Your task to perform on an android device: toggle improve location accuracy Image 0: 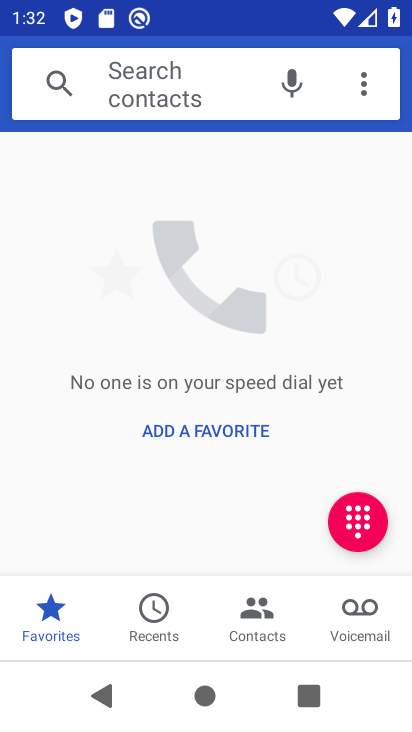
Step 0: press home button
Your task to perform on an android device: toggle improve location accuracy Image 1: 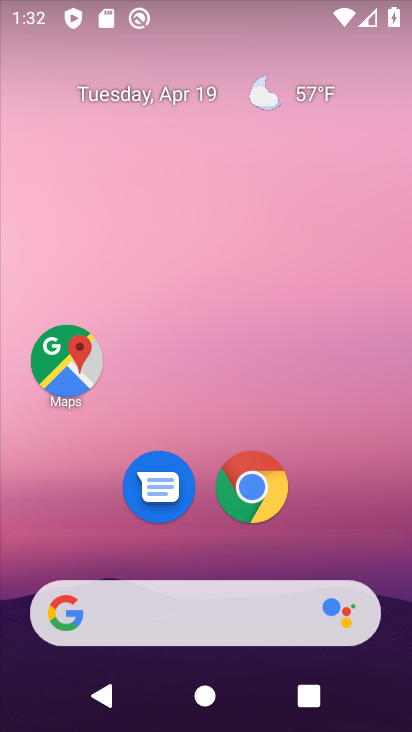
Step 1: drag from (357, 485) to (340, 125)
Your task to perform on an android device: toggle improve location accuracy Image 2: 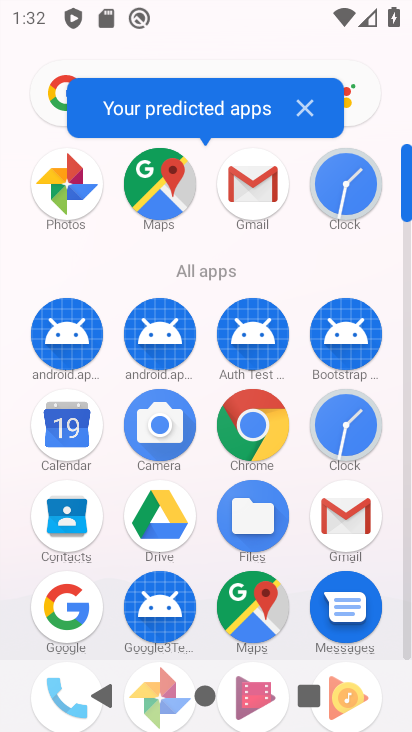
Step 2: drag from (378, 468) to (380, 267)
Your task to perform on an android device: toggle improve location accuracy Image 3: 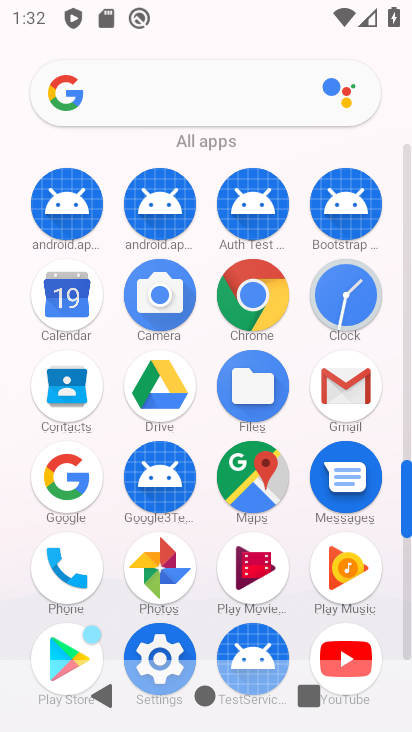
Step 3: click (173, 654)
Your task to perform on an android device: toggle improve location accuracy Image 4: 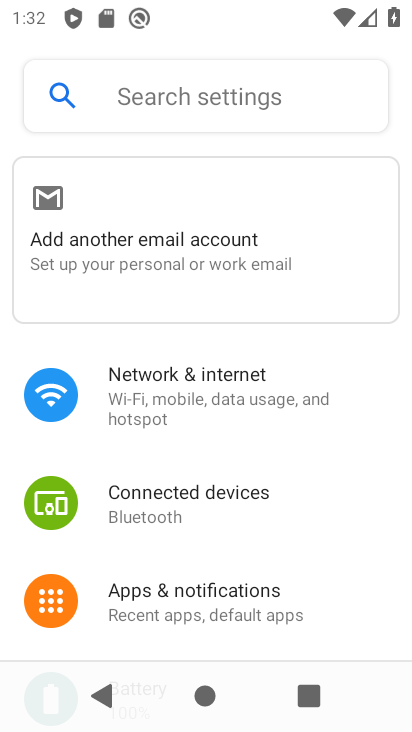
Step 4: drag from (326, 498) to (330, 283)
Your task to perform on an android device: toggle improve location accuracy Image 5: 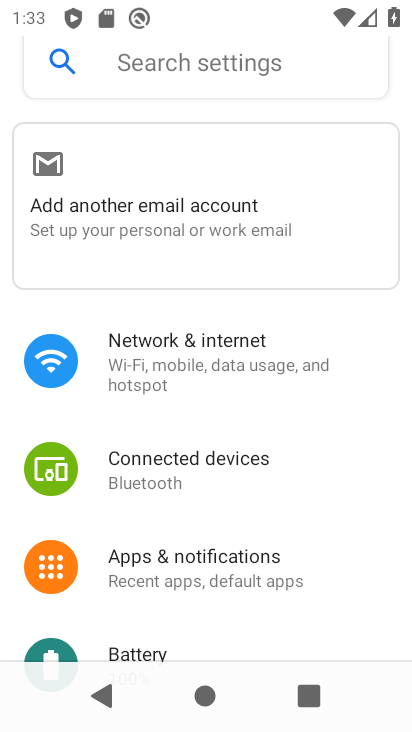
Step 5: drag from (312, 499) to (315, 293)
Your task to perform on an android device: toggle improve location accuracy Image 6: 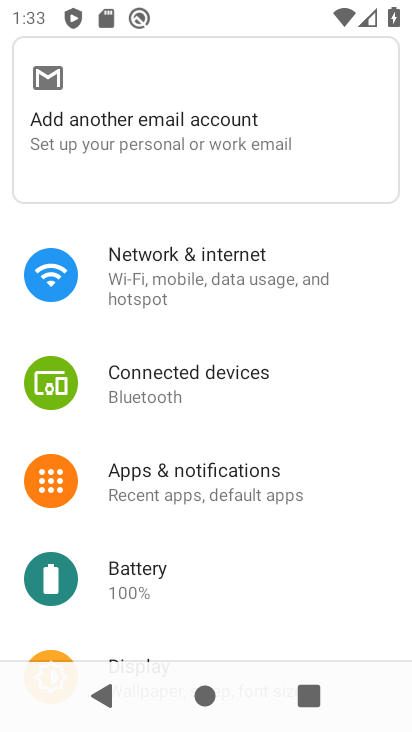
Step 6: drag from (325, 539) to (302, 353)
Your task to perform on an android device: toggle improve location accuracy Image 7: 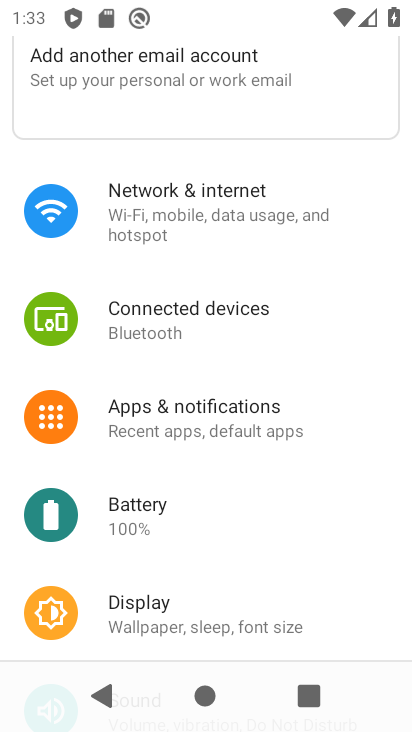
Step 7: drag from (288, 494) to (307, 257)
Your task to perform on an android device: toggle improve location accuracy Image 8: 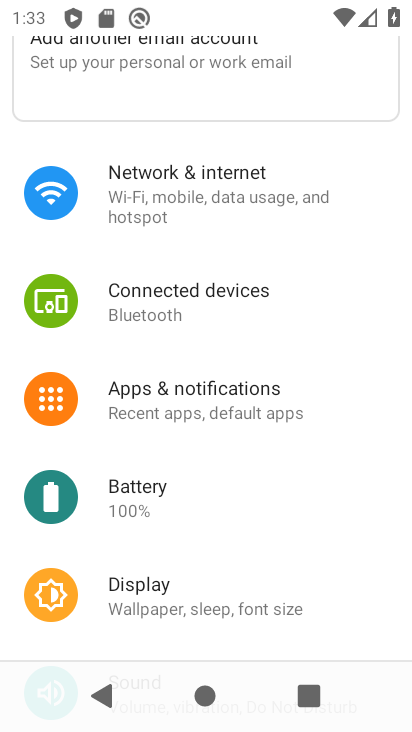
Step 8: drag from (333, 553) to (340, 280)
Your task to perform on an android device: toggle improve location accuracy Image 9: 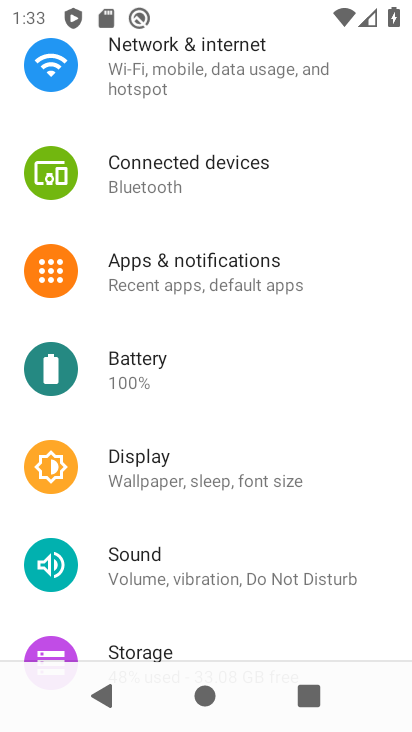
Step 9: drag from (326, 525) to (326, 211)
Your task to perform on an android device: toggle improve location accuracy Image 10: 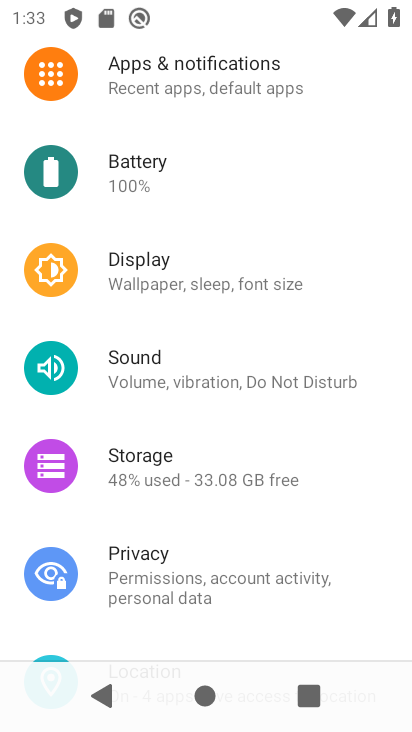
Step 10: drag from (281, 567) to (295, 206)
Your task to perform on an android device: toggle improve location accuracy Image 11: 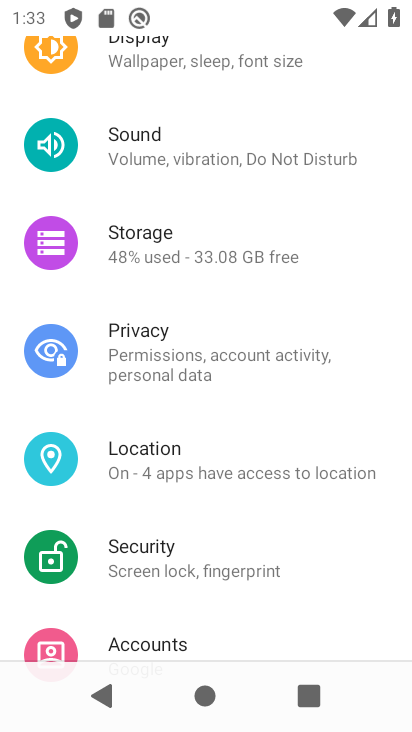
Step 11: click (154, 457)
Your task to perform on an android device: toggle improve location accuracy Image 12: 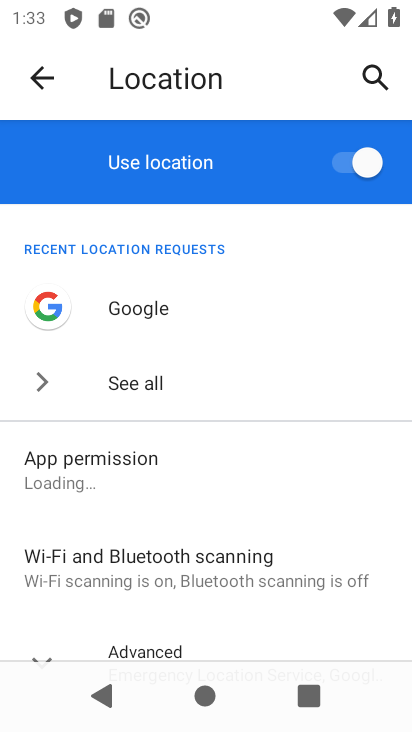
Step 12: drag from (276, 623) to (302, 378)
Your task to perform on an android device: toggle improve location accuracy Image 13: 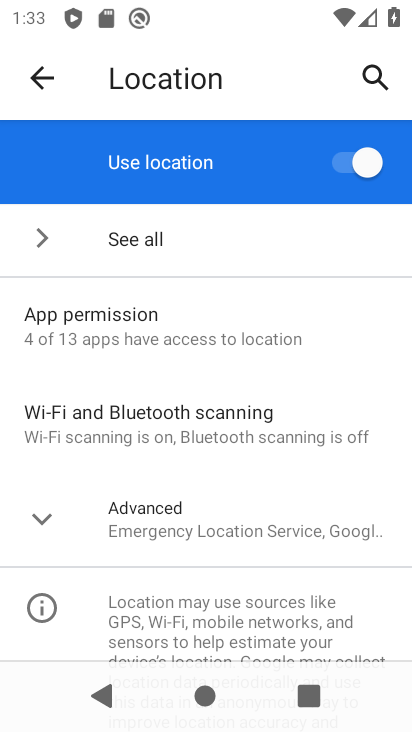
Step 13: click (210, 523)
Your task to perform on an android device: toggle improve location accuracy Image 14: 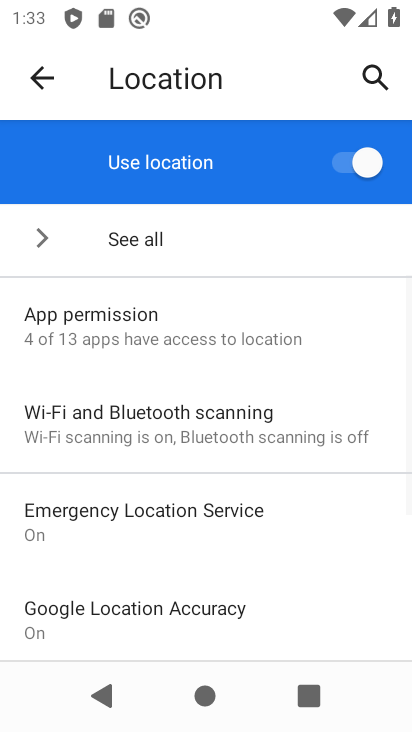
Step 14: click (210, 582)
Your task to perform on an android device: toggle improve location accuracy Image 15: 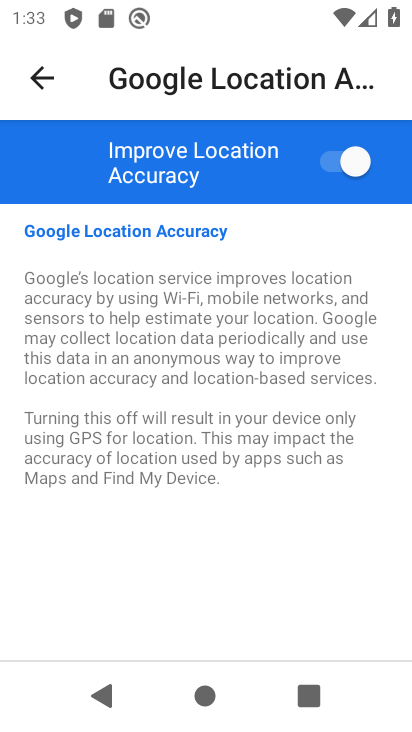
Step 15: click (347, 176)
Your task to perform on an android device: toggle improve location accuracy Image 16: 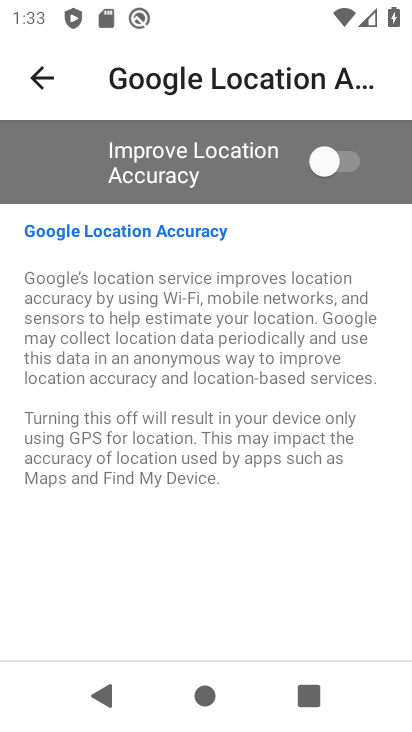
Step 16: task complete